Your task to perform on an android device: Go to settings Image 0: 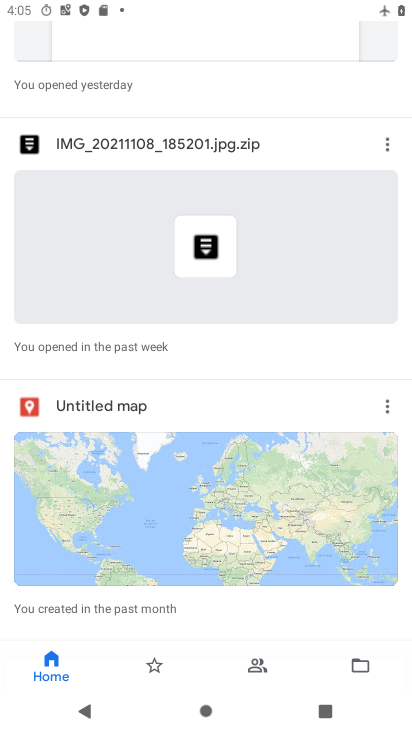
Step 0: press home button
Your task to perform on an android device: Go to settings Image 1: 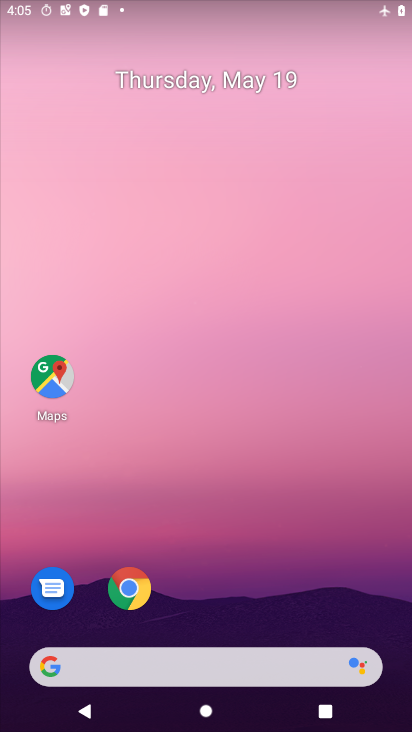
Step 1: drag from (170, 557) to (106, 27)
Your task to perform on an android device: Go to settings Image 2: 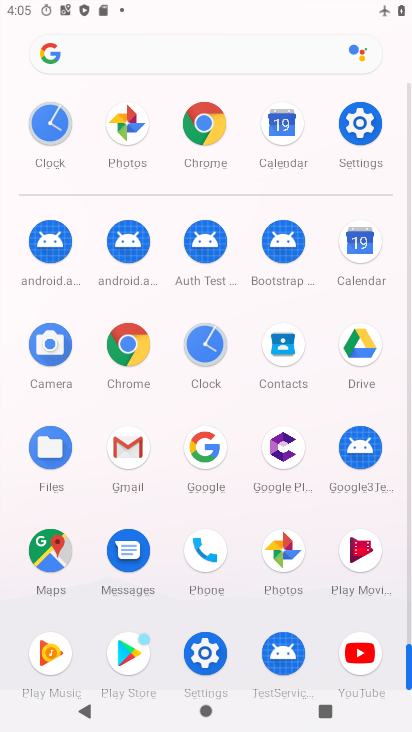
Step 2: click (369, 134)
Your task to perform on an android device: Go to settings Image 3: 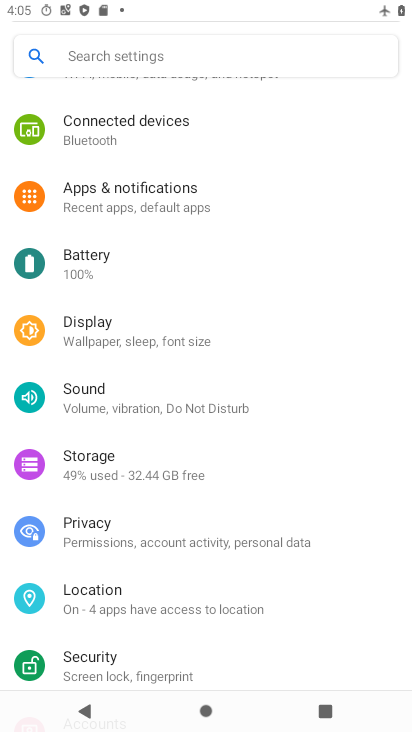
Step 3: task complete